Your task to perform on an android device: Search for seafood restaurants on Google Maps Image 0: 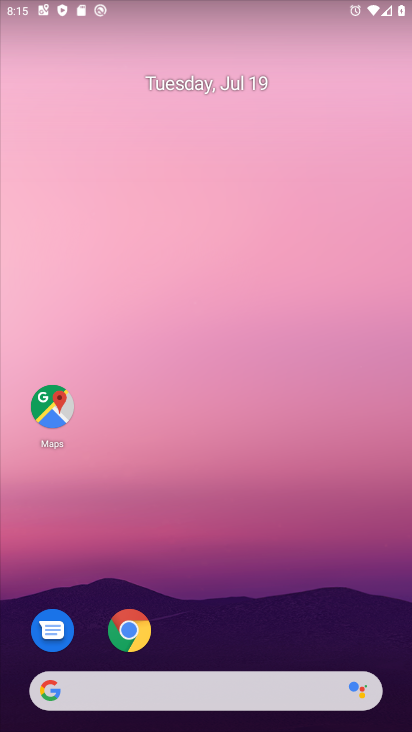
Step 0: drag from (284, 629) to (289, 18)
Your task to perform on an android device: Search for seafood restaurants on Google Maps Image 1: 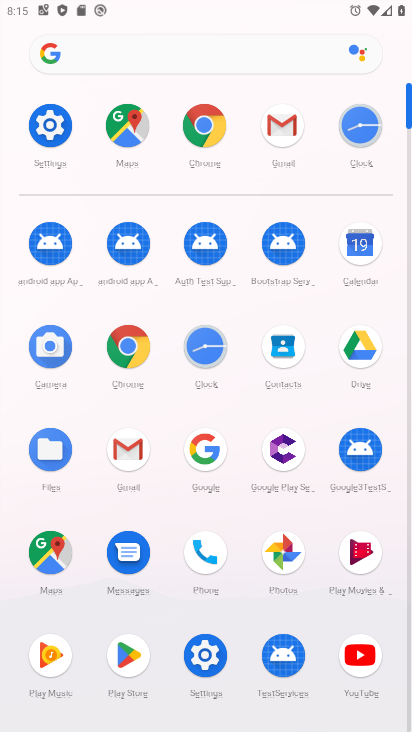
Step 1: click (47, 550)
Your task to perform on an android device: Search for seafood restaurants on Google Maps Image 2: 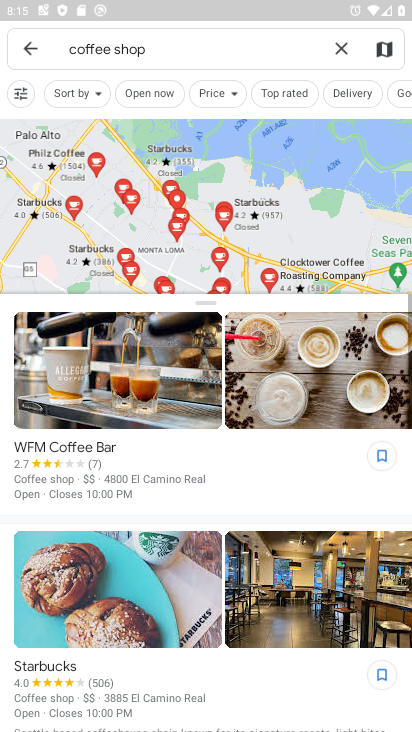
Step 2: click (342, 41)
Your task to perform on an android device: Search for seafood restaurants on Google Maps Image 3: 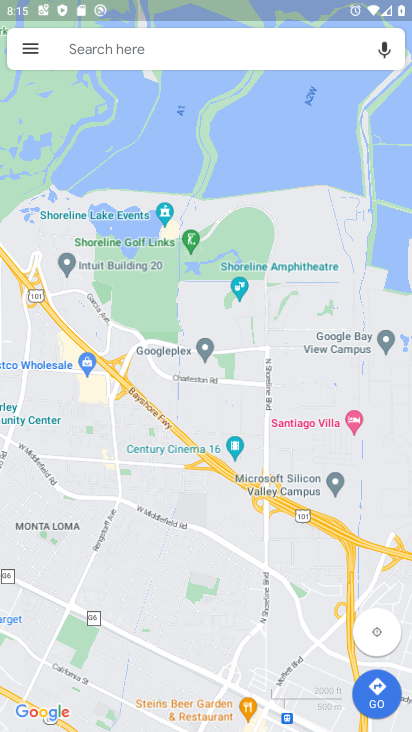
Step 3: click (223, 52)
Your task to perform on an android device: Search for seafood restaurants on Google Maps Image 4: 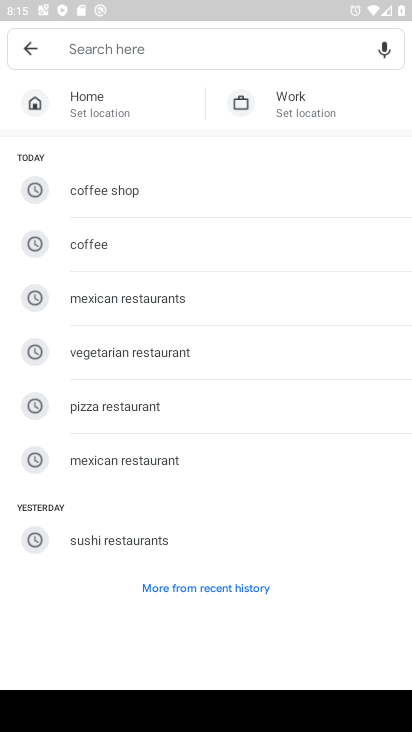
Step 4: type "seafood restaurants"
Your task to perform on an android device: Search for seafood restaurants on Google Maps Image 5: 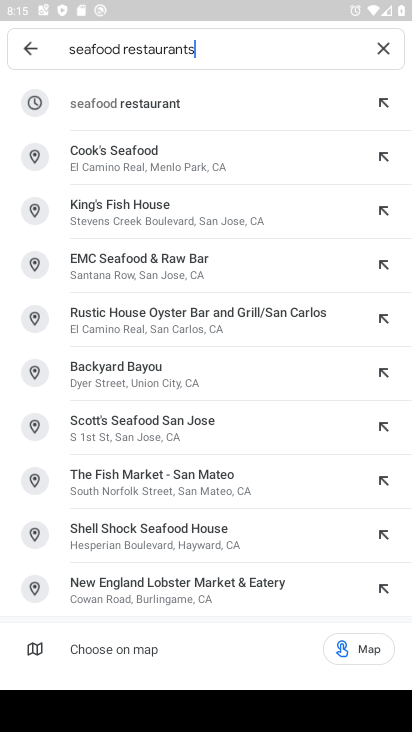
Step 5: press enter
Your task to perform on an android device: Search for seafood restaurants on Google Maps Image 6: 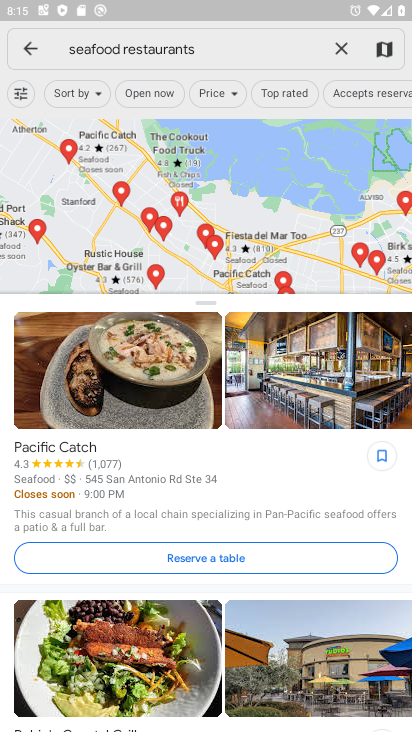
Step 6: task complete